Your task to perform on an android device: Open Google Maps Image 0: 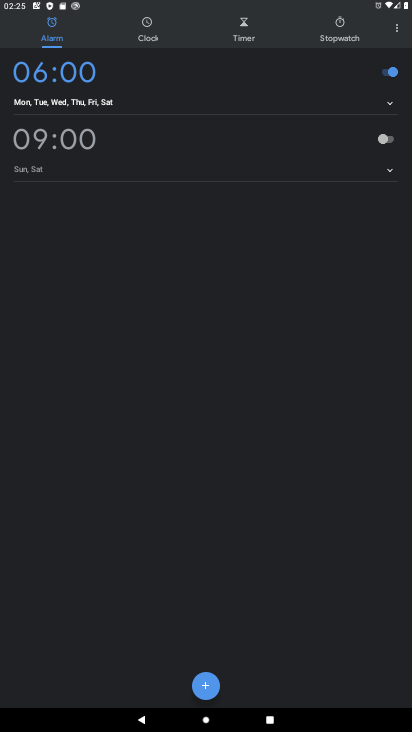
Step 0: press home button
Your task to perform on an android device: Open Google Maps Image 1: 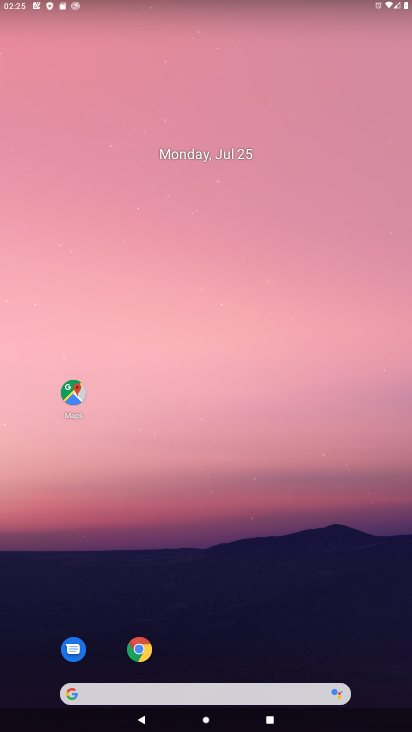
Step 1: click (72, 393)
Your task to perform on an android device: Open Google Maps Image 2: 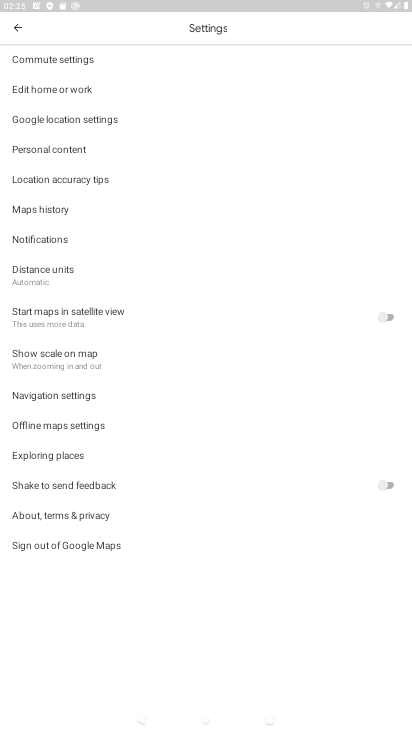
Step 2: task complete